Your task to perform on an android device: turn on notifications settings in the gmail app Image 0: 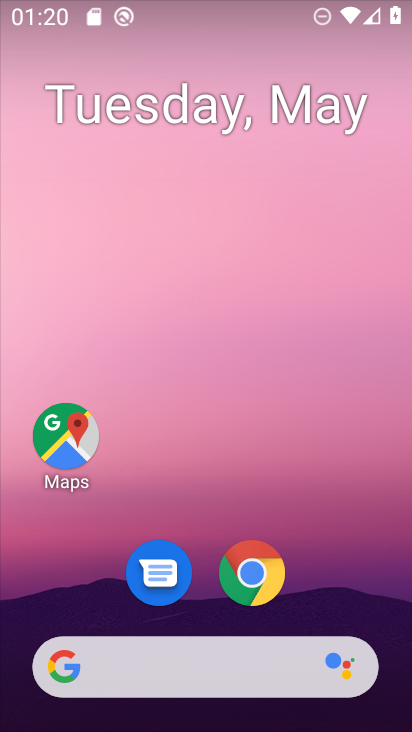
Step 0: drag from (326, 466) to (172, 26)
Your task to perform on an android device: turn on notifications settings in the gmail app Image 1: 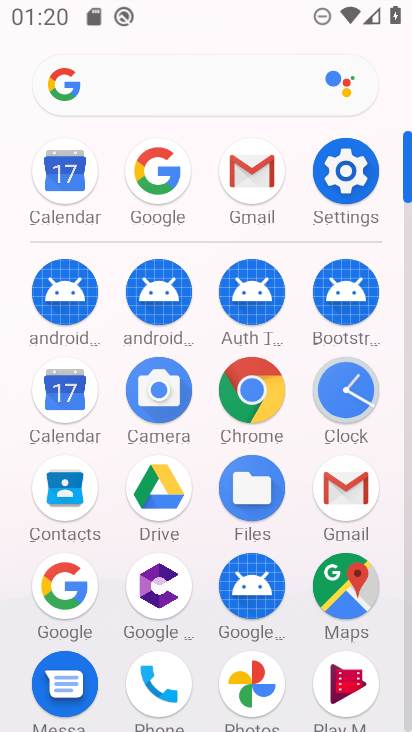
Step 1: click (347, 481)
Your task to perform on an android device: turn on notifications settings in the gmail app Image 2: 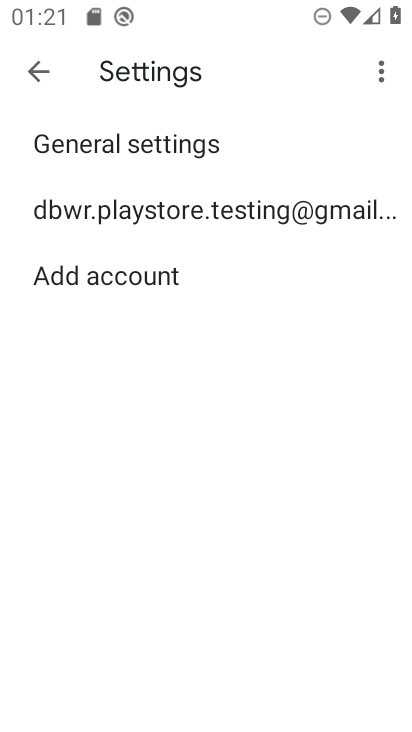
Step 2: click (126, 210)
Your task to perform on an android device: turn on notifications settings in the gmail app Image 3: 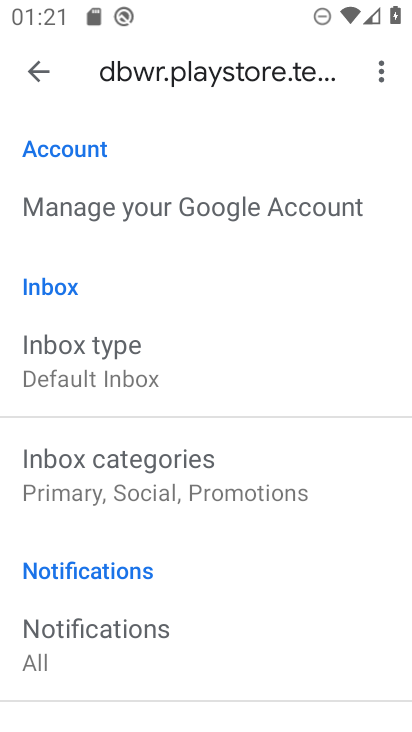
Step 3: click (121, 642)
Your task to perform on an android device: turn on notifications settings in the gmail app Image 4: 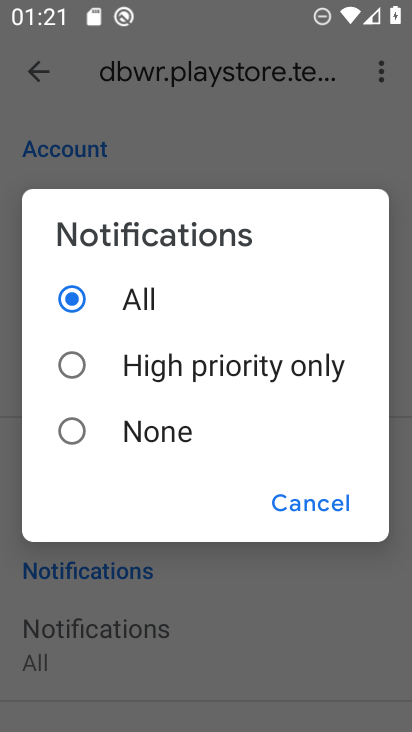
Step 4: task complete